Your task to perform on an android device: change the clock display to analog Image 0: 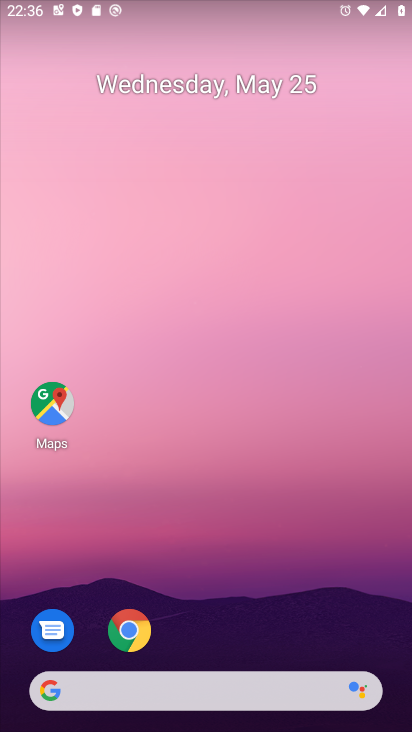
Step 0: drag from (221, 635) to (224, 187)
Your task to perform on an android device: change the clock display to analog Image 1: 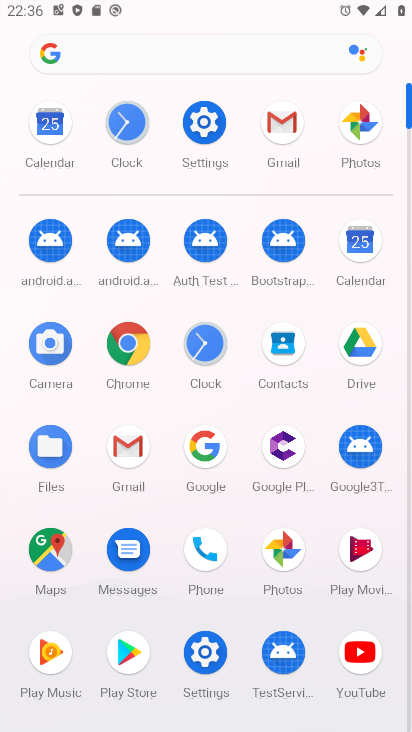
Step 1: click (190, 320)
Your task to perform on an android device: change the clock display to analog Image 2: 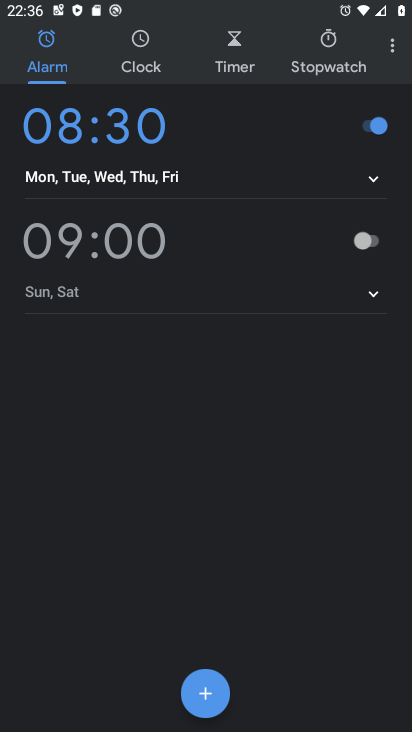
Step 2: click (391, 53)
Your task to perform on an android device: change the clock display to analog Image 3: 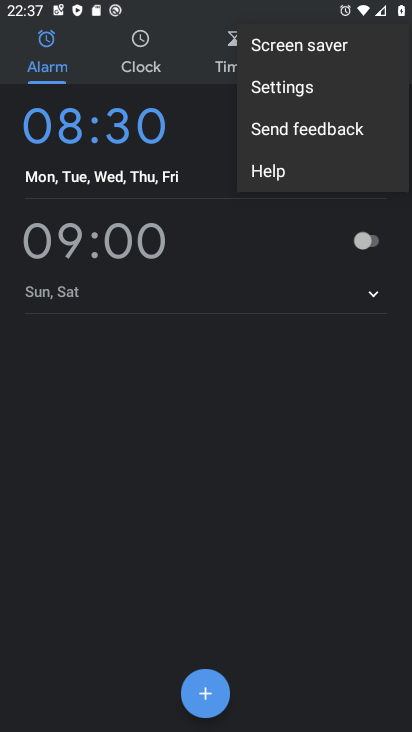
Step 3: click (333, 84)
Your task to perform on an android device: change the clock display to analog Image 4: 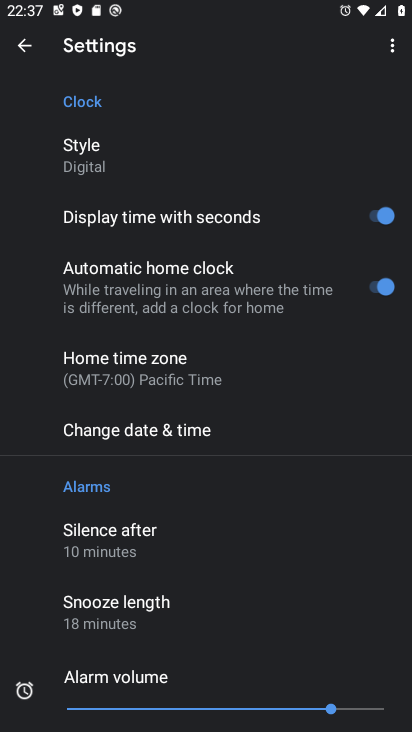
Step 4: click (116, 149)
Your task to perform on an android device: change the clock display to analog Image 5: 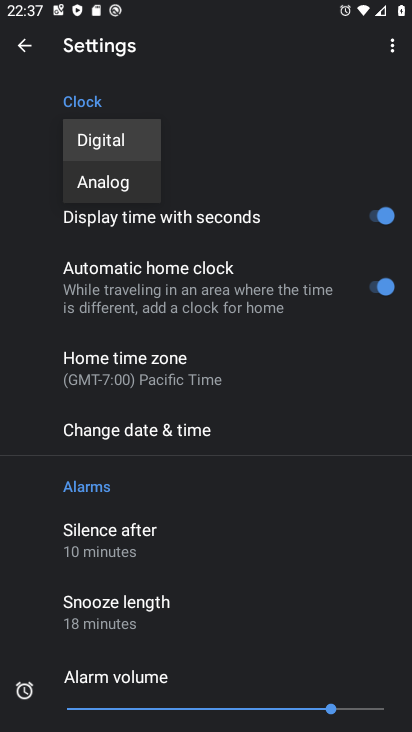
Step 5: click (125, 186)
Your task to perform on an android device: change the clock display to analog Image 6: 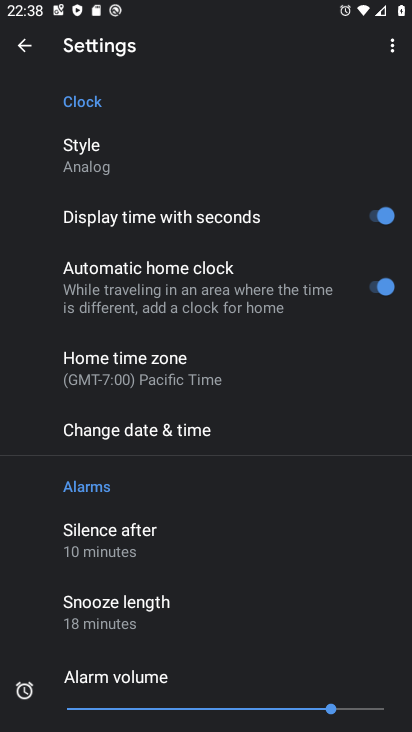
Step 6: task complete